Your task to perform on an android device: Show me recent news Image 0: 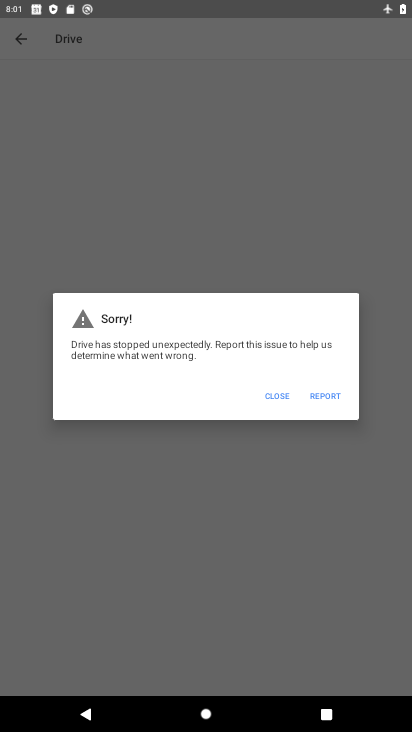
Step 0: press home button
Your task to perform on an android device: Show me recent news Image 1: 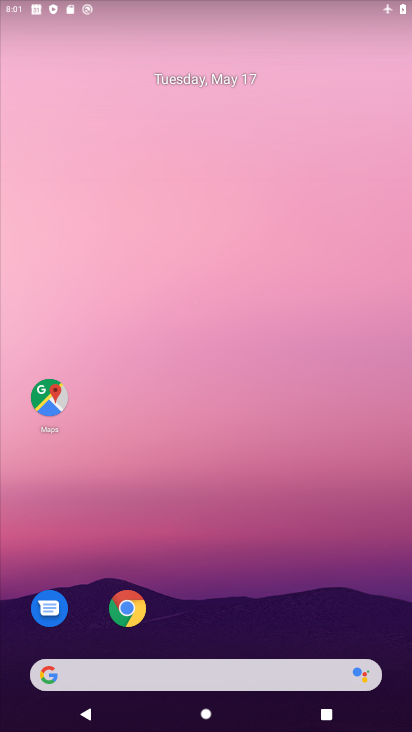
Step 1: drag from (328, 621) to (325, 254)
Your task to perform on an android device: Show me recent news Image 2: 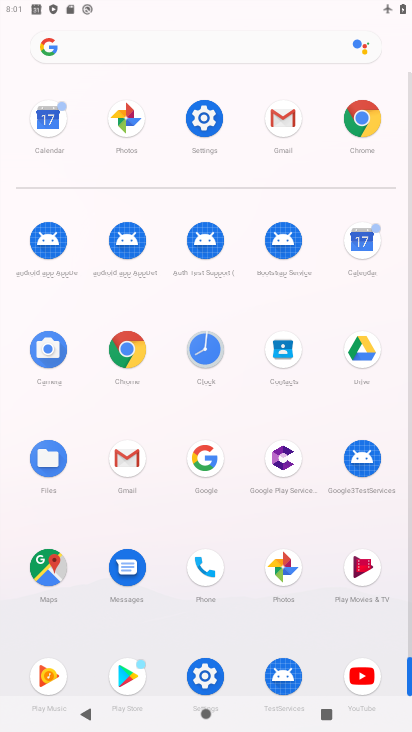
Step 2: click (124, 339)
Your task to perform on an android device: Show me recent news Image 3: 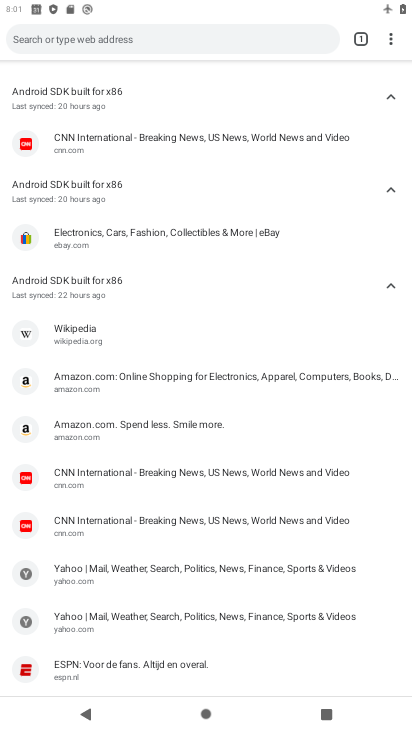
Step 3: click (154, 33)
Your task to perform on an android device: Show me recent news Image 4: 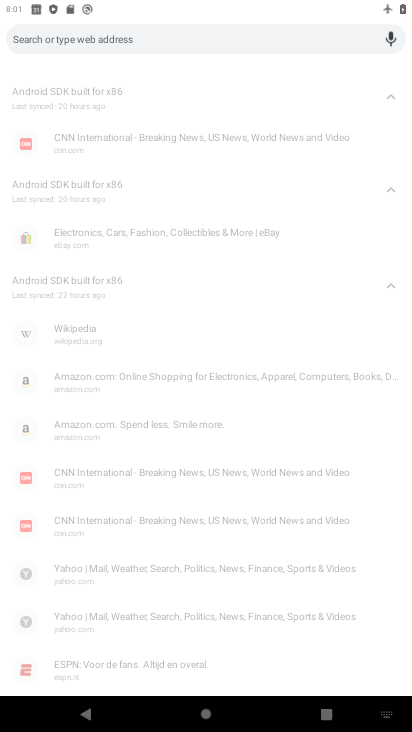
Step 4: type "recent news"
Your task to perform on an android device: Show me recent news Image 5: 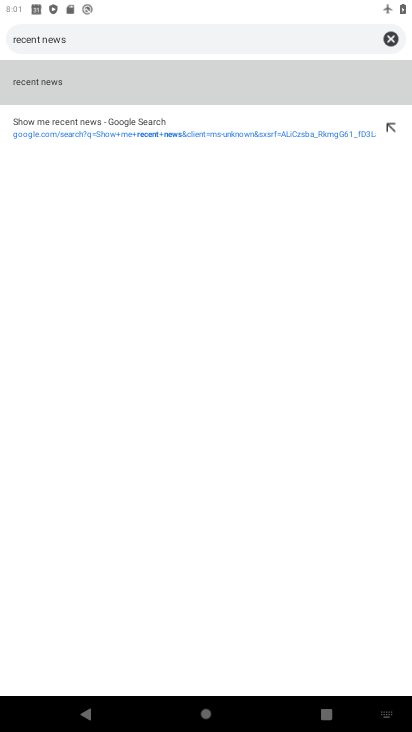
Step 5: click (49, 78)
Your task to perform on an android device: Show me recent news Image 6: 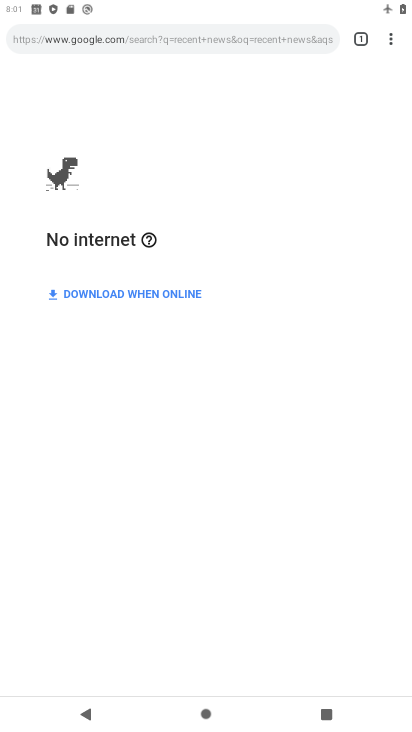
Step 6: task complete